Your task to perform on an android device: set default search engine in the chrome app Image 0: 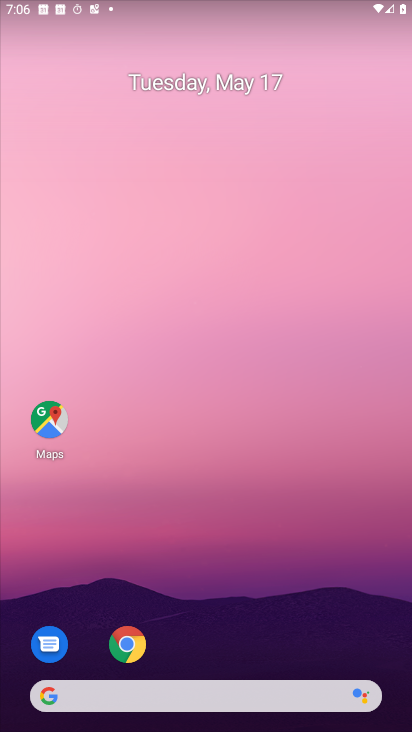
Step 0: drag from (351, 654) to (406, 436)
Your task to perform on an android device: set default search engine in the chrome app Image 1: 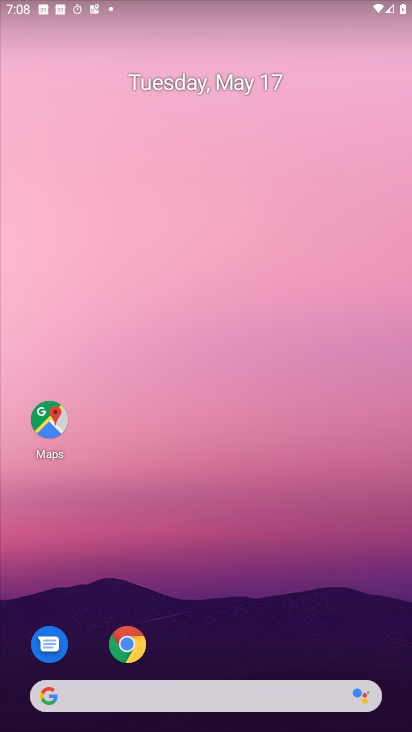
Step 1: drag from (260, 643) to (279, 14)
Your task to perform on an android device: set default search engine in the chrome app Image 2: 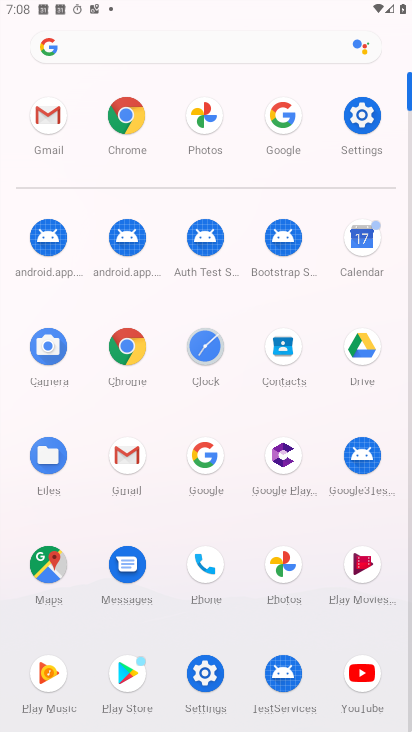
Step 2: click (120, 124)
Your task to perform on an android device: set default search engine in the chrome app Image 3: 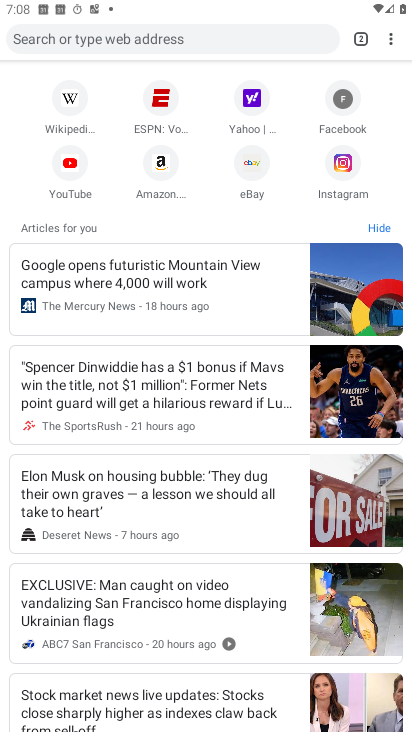
Step 3: click (390, 32)
Your task to perform on an android device: set default search engine in the chrome app Image 4: 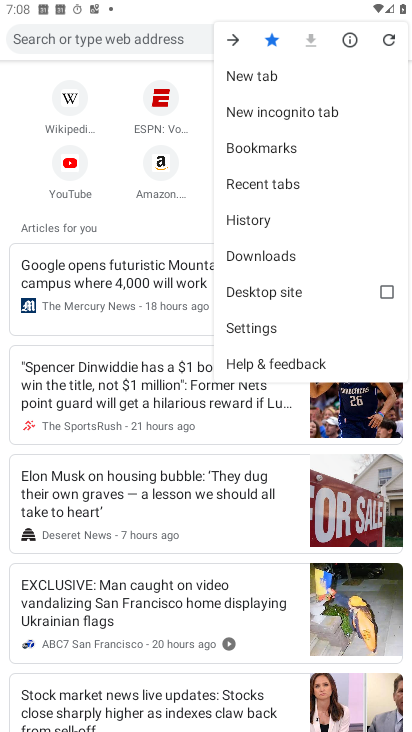
Step 4: click (274, 329)
Your task to perform on an android device: set default search engine in the chrome app Image 5: 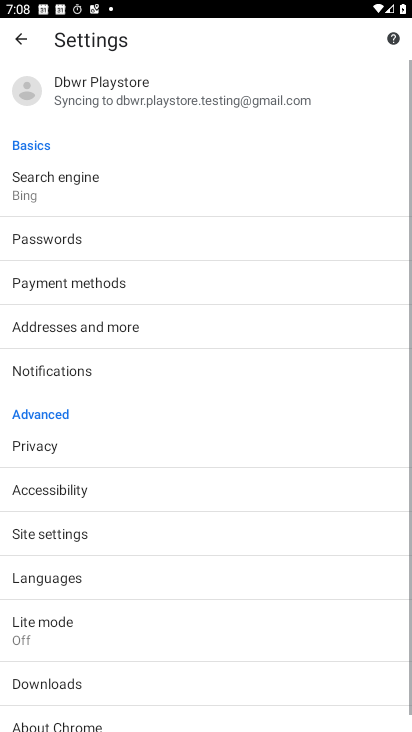
Step 5: click (138, 200)
Your task to perform on an android device: set default search engine in the chrome app Image 6: 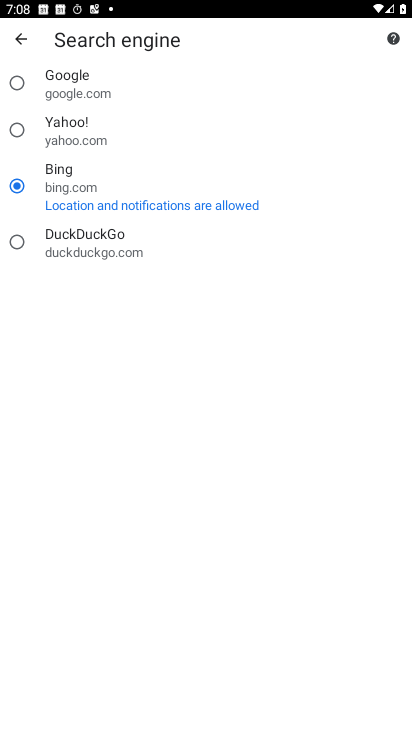
Step 6: click (32, 94)
Your task to perform on an android device: set default search engine in the chrome app Image 7: 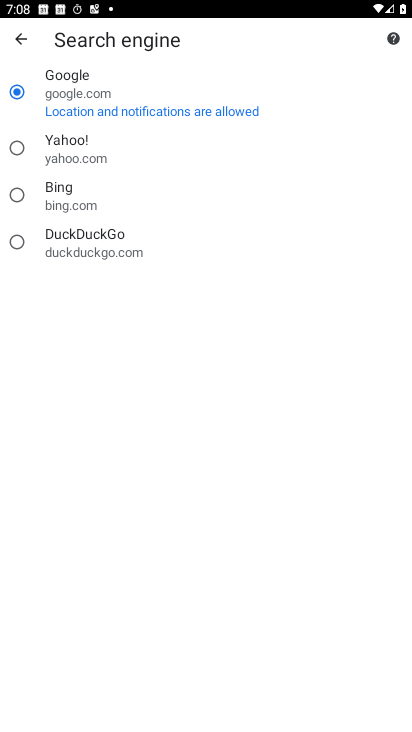
Step 7: task complete